Your task to perform on an android device: Show me the alarms in the clock app Image 0: 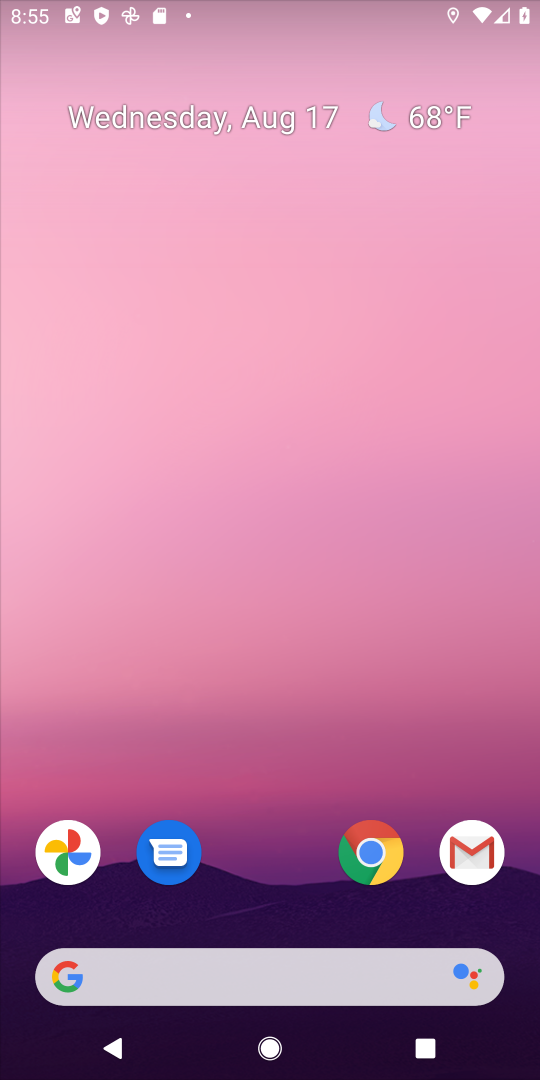
Step 0: press home button
Your task to perform on an android device: Show me the alarms in the clock app Image 1: 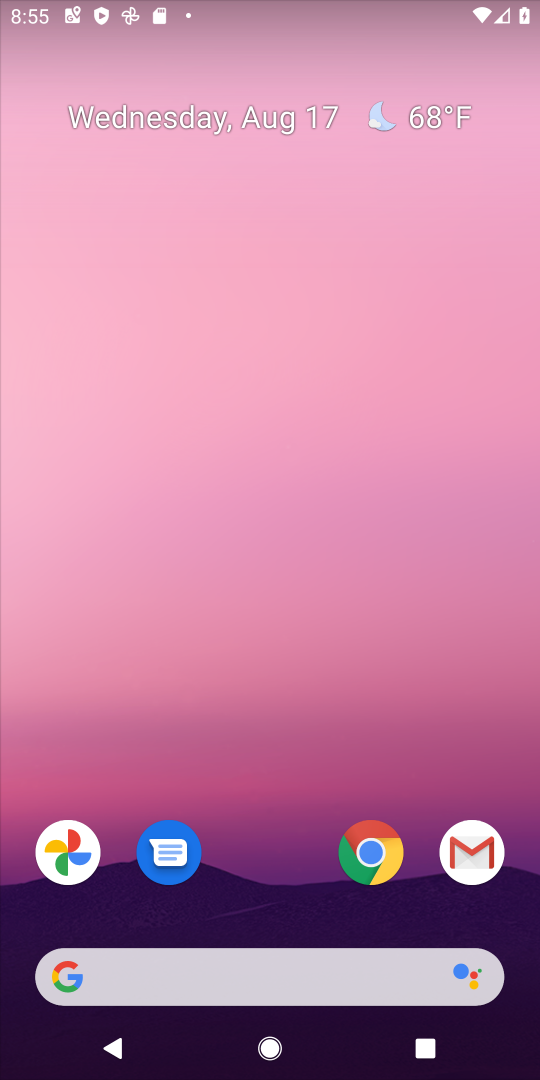
Step 1: drag from (282, 891) to (251, 177)
Your task to perform on an android device: Show me the alarms in the clock app Image 2: 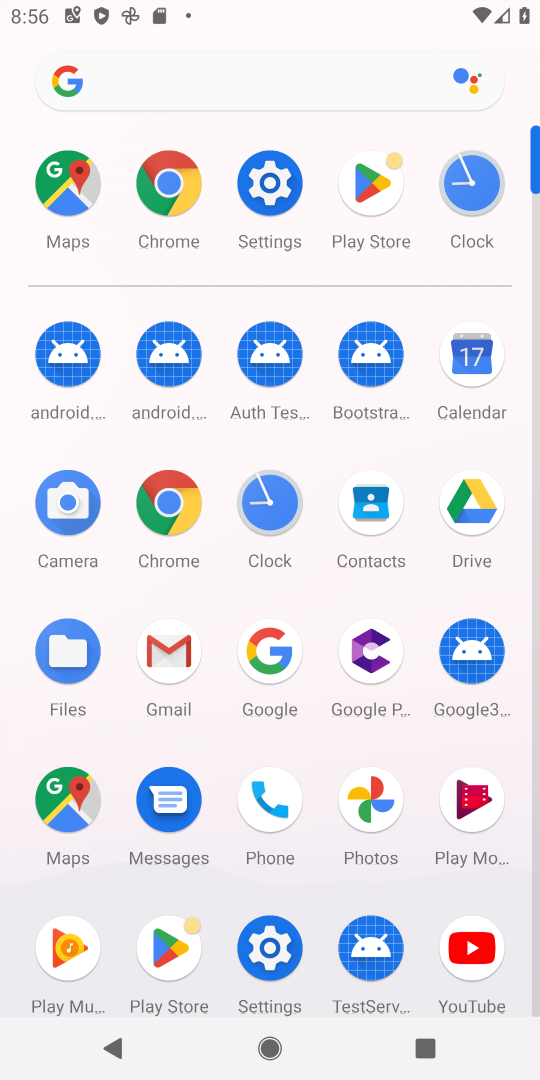
Step 2: click (268, 499)
Your task to perform on an android device: Show me the alarms in the clock app Image 3: 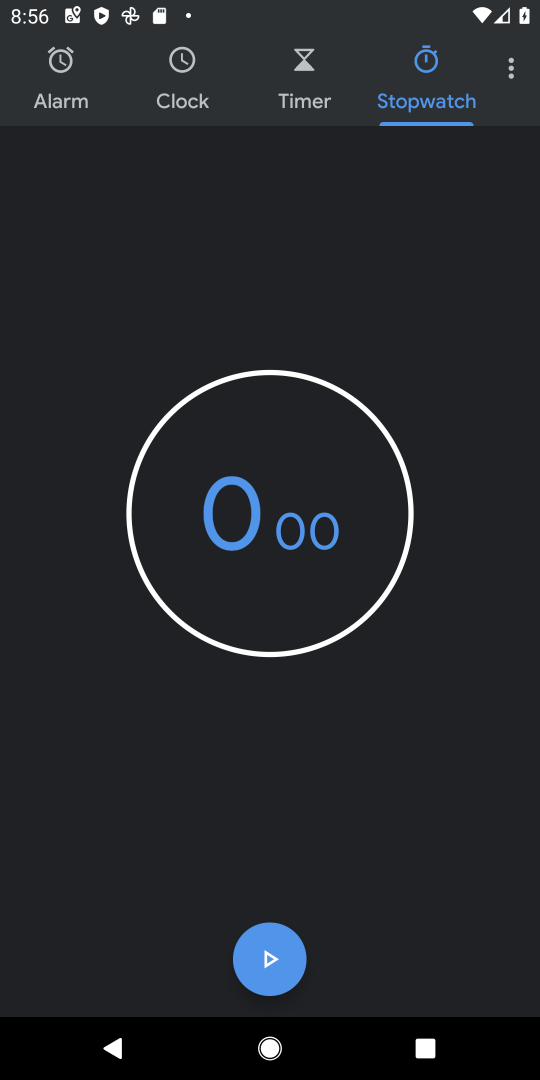
Step 3: click (53, 72)
Your task to perform on an android device: Show me the alarms in the clock app Image 4: 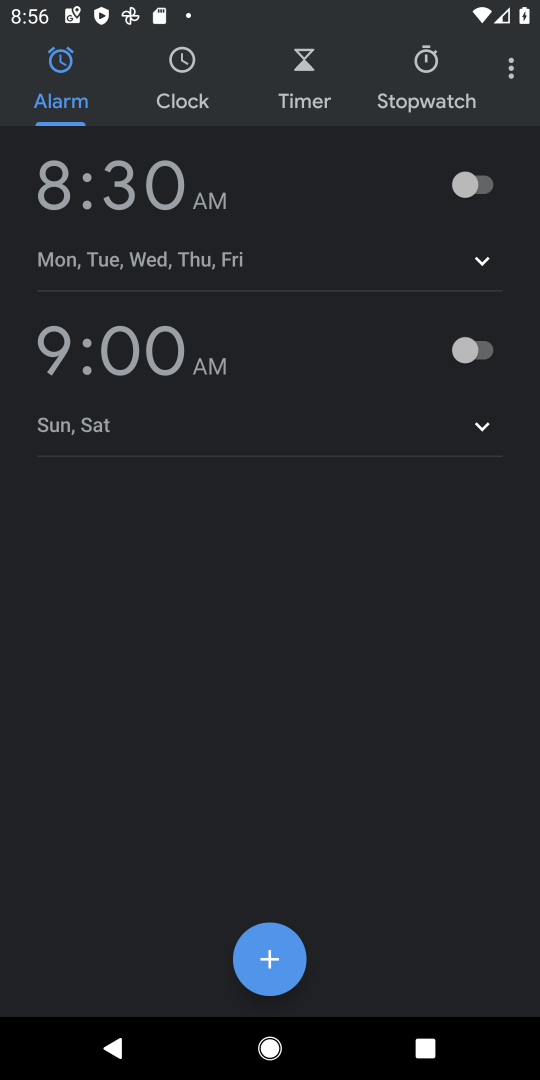
Step 4: task complete